Your task to perform on an android device: Open Google Image 0: 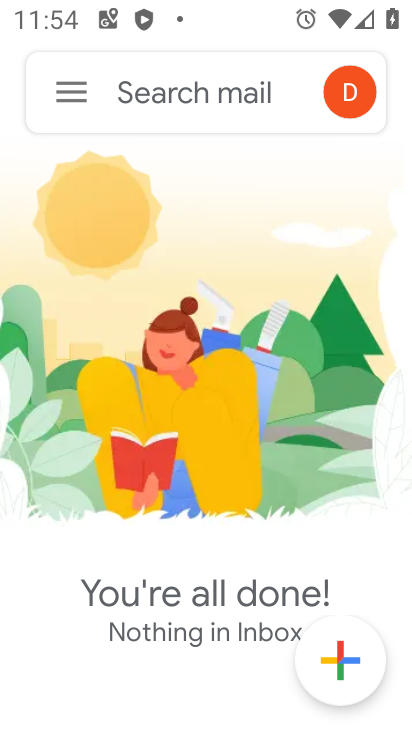
Step 0: press home button
Your task to perform on an android device: Open Google Image 1: 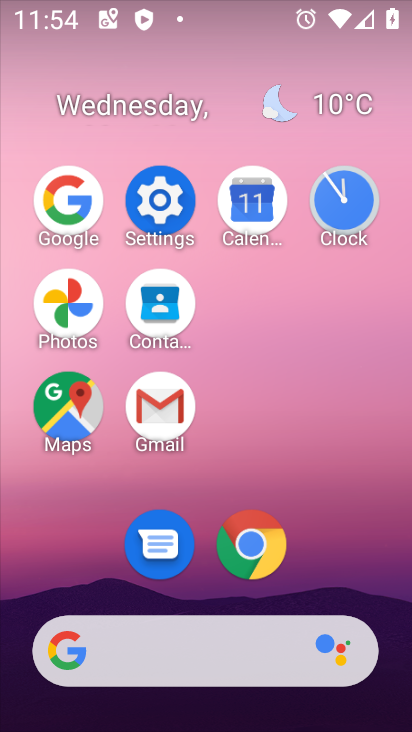
Step 1: click (83, 189)
Your task to perform on an android device: Open Google Image 2: 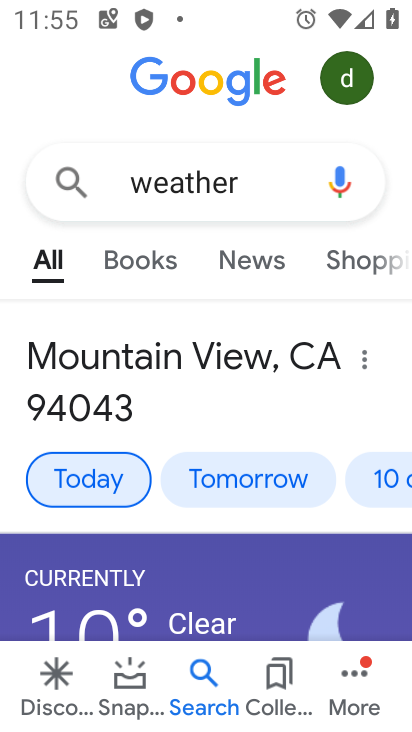
Step 2: task complete